Your task to perform on an android device: change notification settings in the gmail app Image 0: 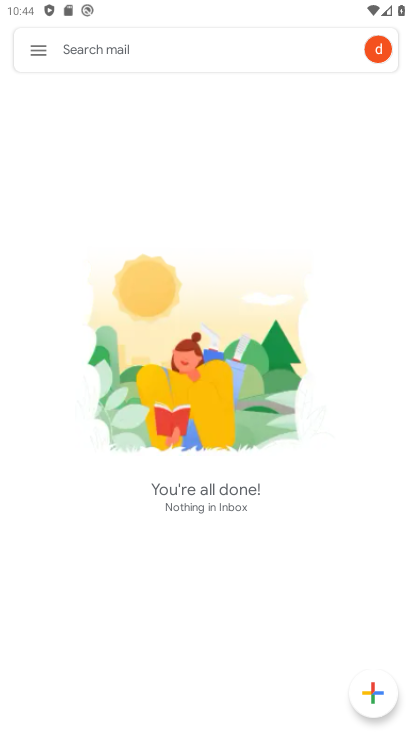
Step 0: press home button
Your task to perform on an android device: change notification settings in the gmail app Image 1: 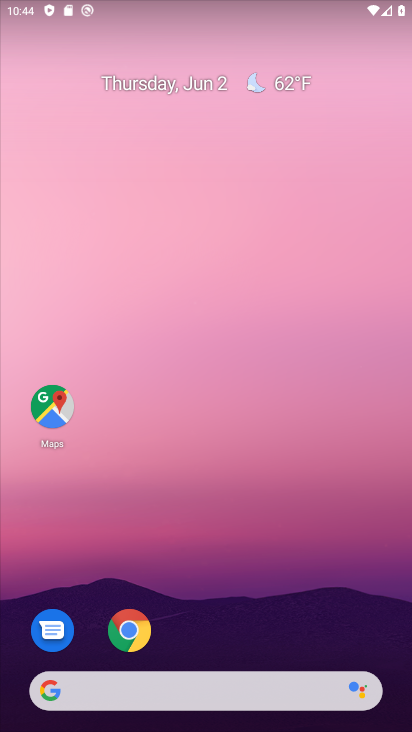
Step 1: drag from (167, 647) to (330, 88)
Your task to perform on an android device: change notification settings in the gmail app Image 2: 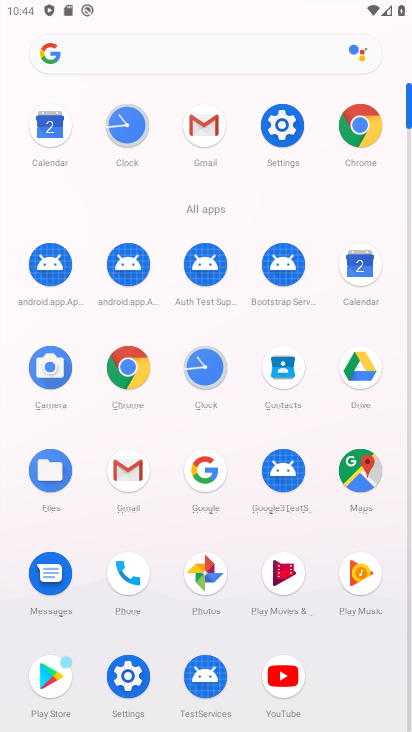
Step 2: click (208, 133)
Your task to perform on an android device: change notification settings in the gmail app Image 3: 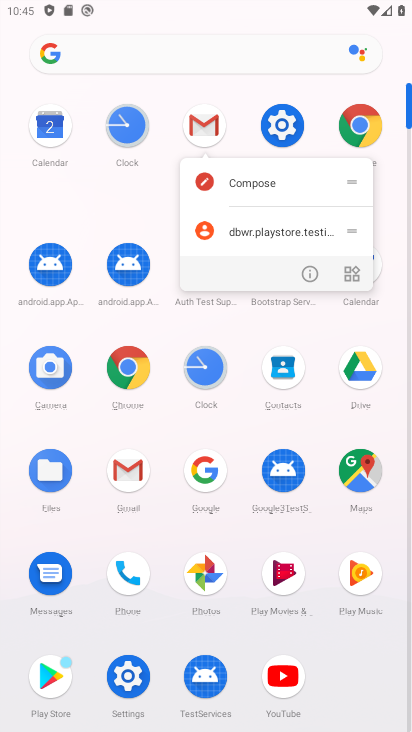
Step 3: click (208, 133)
Your task to perform on an android device: change notification settings in the gmail app Image 4: 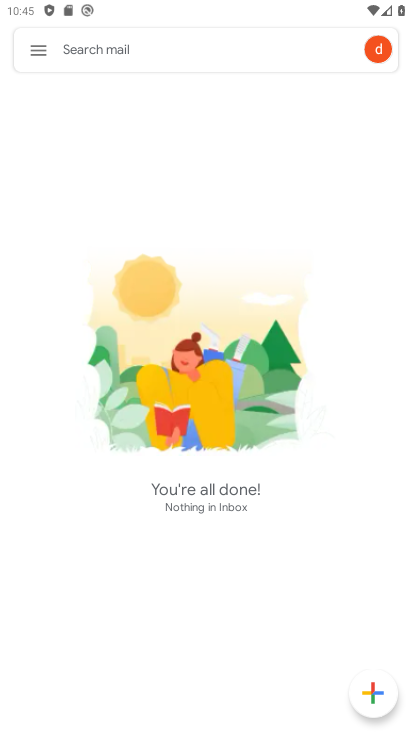
Step 4: click (41, 49)
Your task to perform on an android device: change notification settings in the gmail app Image 5: 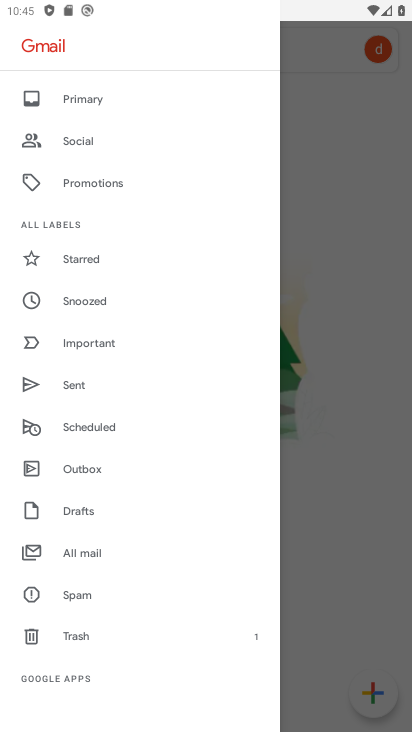
Step 5: drag from (144, 659) to (236, 344)
Your task to perform on an android device: change notification settings in the gmail app Image 6: 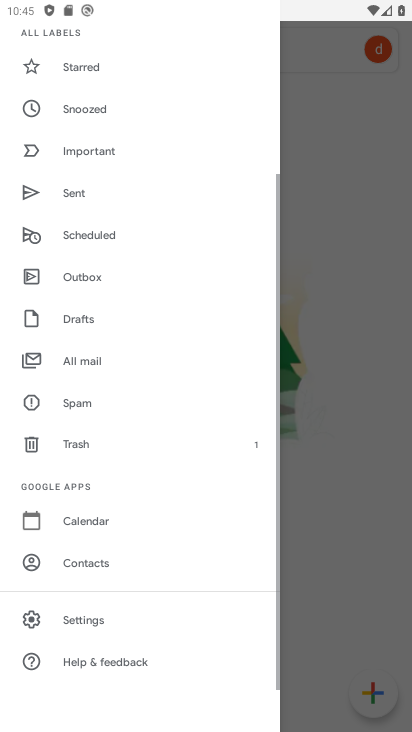
Step 6: click (100, 620)
Your task to perform on an android device: change notification settings in the gmail app Image 7: 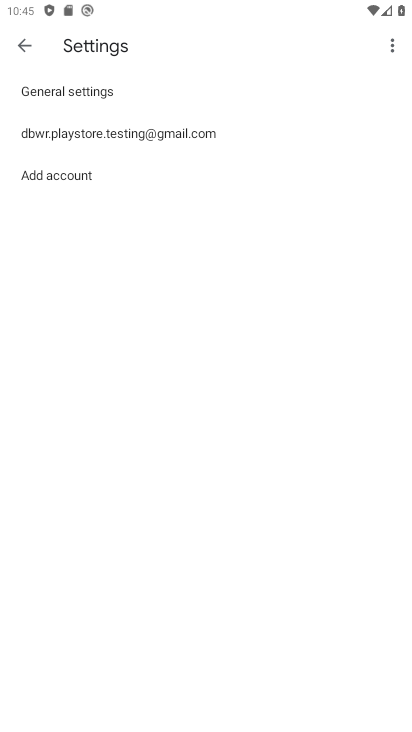
Step 7: click (128, 128)
Your task to perform on an android device: change notification settings in the gmail app Image 8: 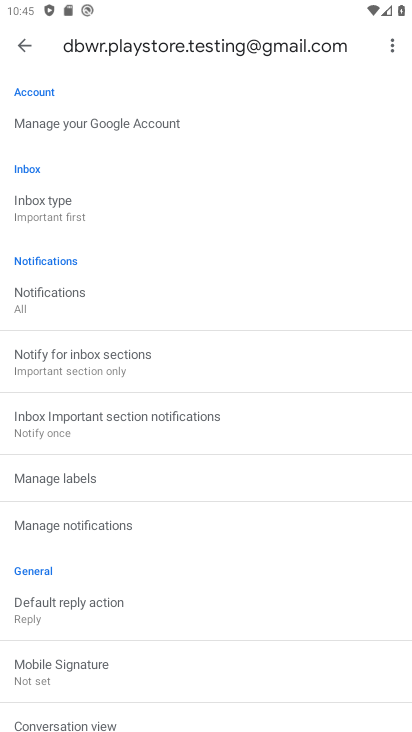
Step 8: click (53, 298)
Your task to perform on an android device: change notification settings in the gmail app Image 9: 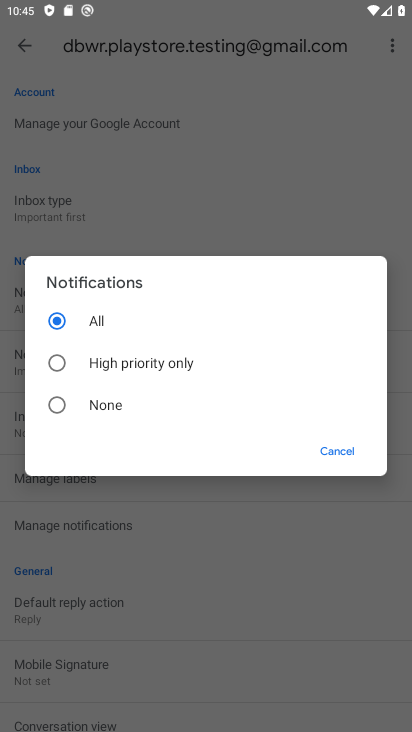
Step 9: click (60, 407)
Your task to perform on an android device: change notification settings in the gmail app Image 10: 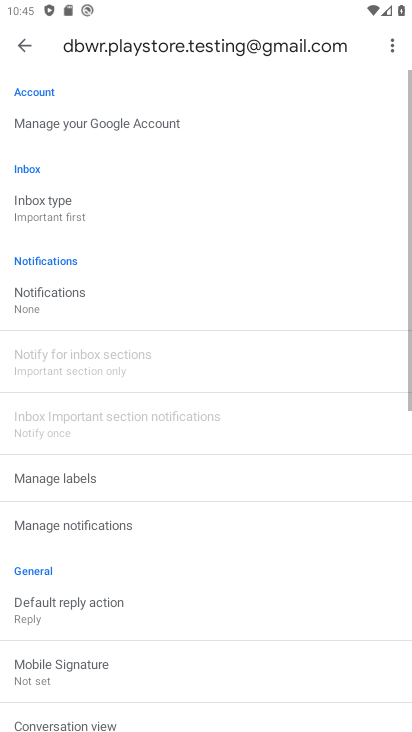
Step 10: task complete